Your task to perform on an android device: What's the weather today? Image 0: 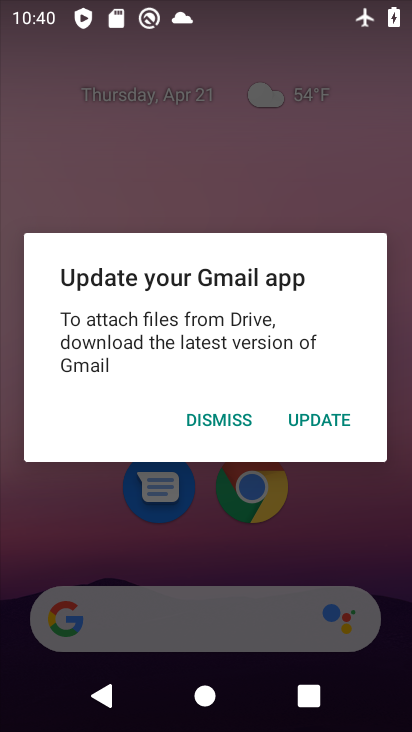
Step 0: press home button
Your task to perform on an android device: What's the weather today? Image 1: 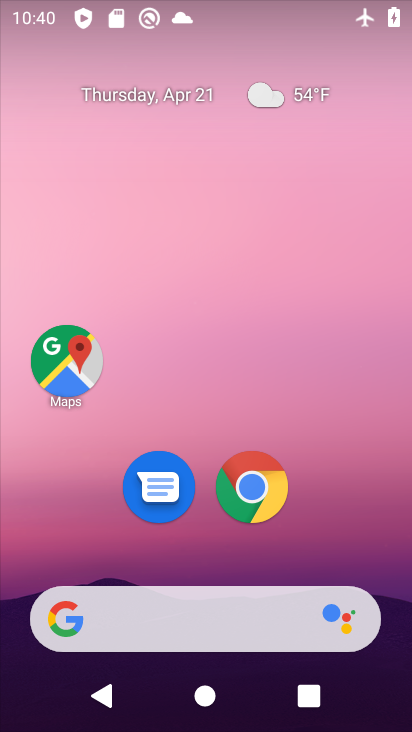
Step 1: drag from (368, 525) to (367, 127)
Your task to perform on an android device: What's the weather today? Image 2: 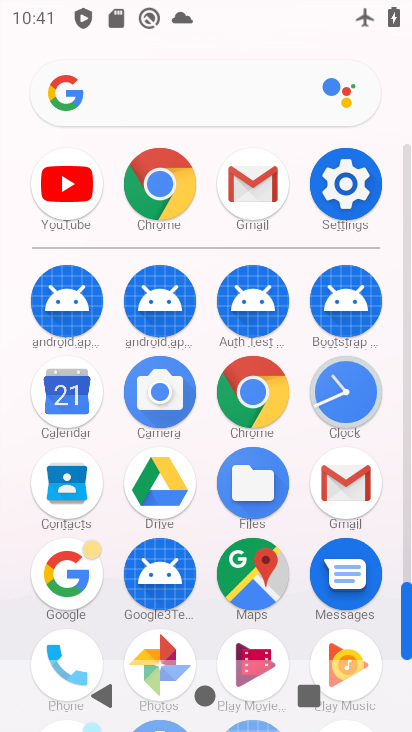
Step 2: click (247, 386)
Your task to perform on an android device: What's the weather today? Image 3: 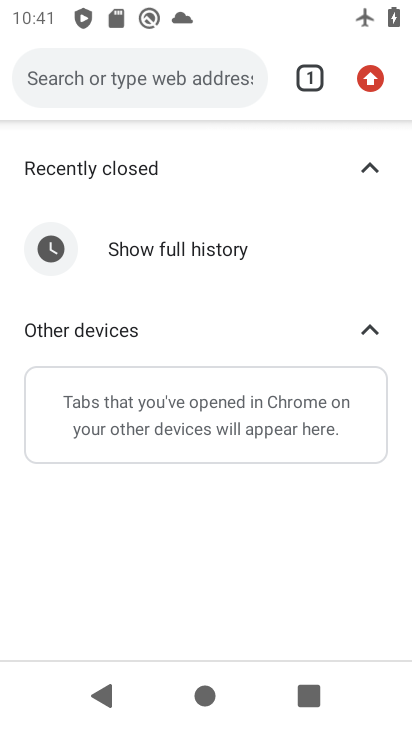
Step 3: click (209, 81)
Your task to perform on an android device: What's the weather today? Image 4: 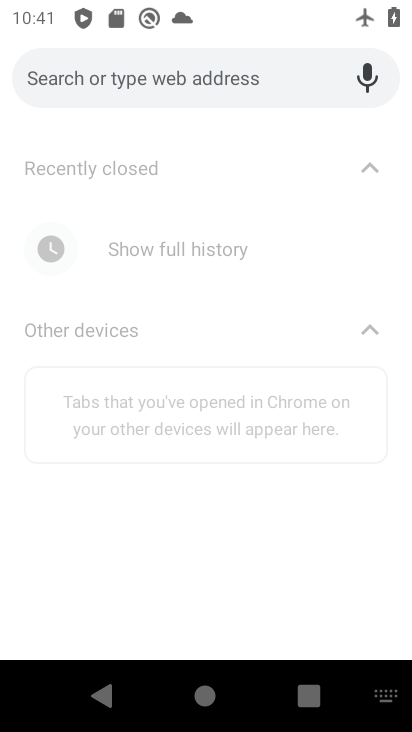
Step 4: type "what's the weather today"
Your task to perform on an android device: What's the weather today? Image 5: 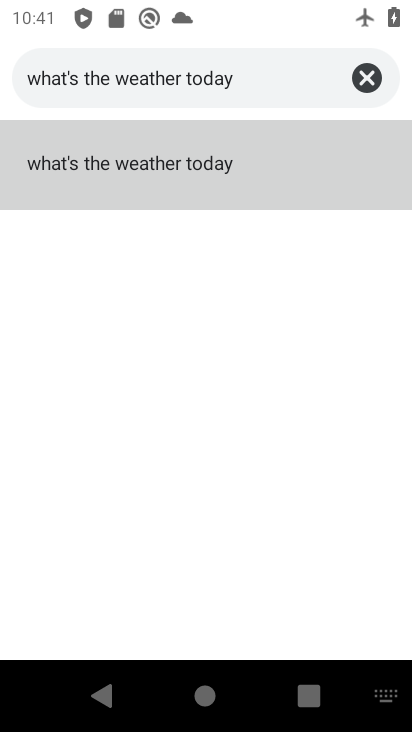
Step 5: click (167, 164)
Your task to perform on an android device: What's the weather today? Image 6: 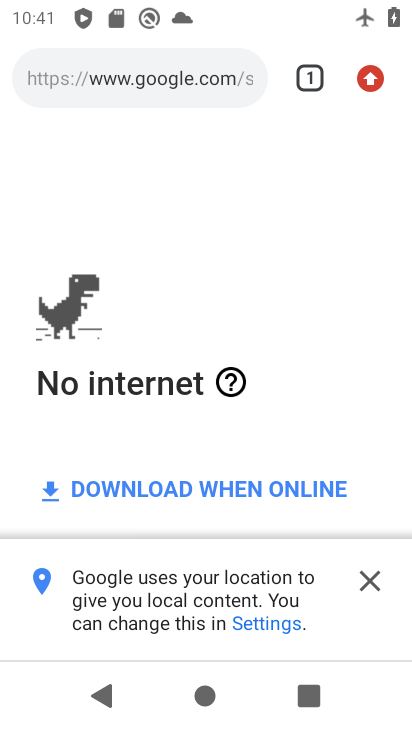
Step 6: task complete